Your task to perform on an android device: turn on improve location accuracy Image 0: 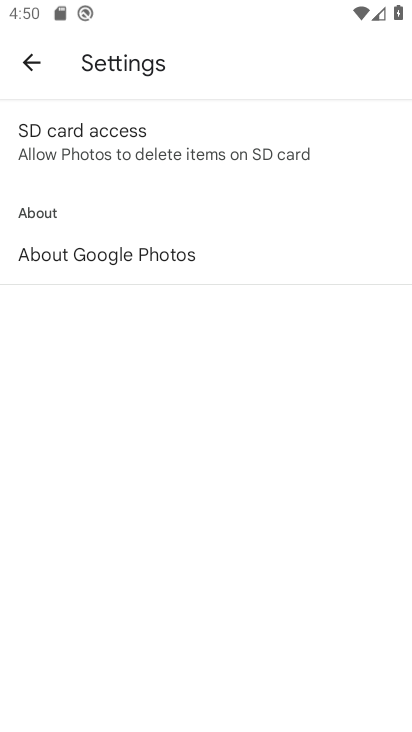
Step 0: press home button
Your task to perform on an android device: turn on improve location accuracy Image 1: 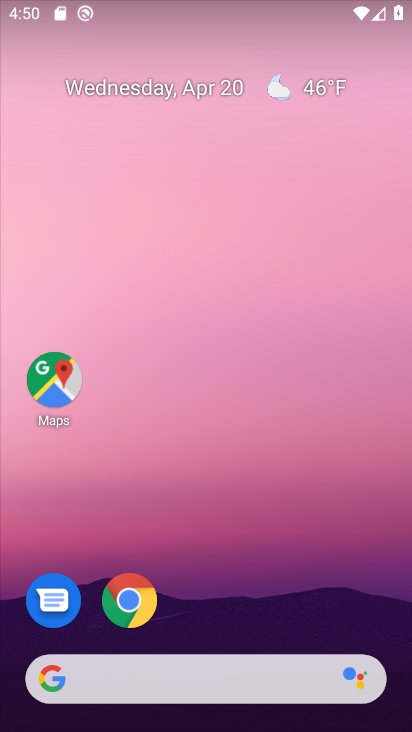
Step 1: drag from (228, 632) to (244, 68)
Your task to perform on an android device: turn on improve location accuracy Image 2: 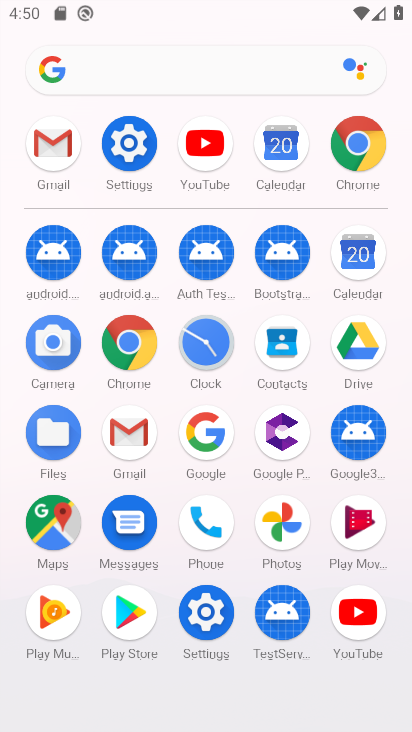
Step 2: click (206, 608)
Your task to perform on an android device: turn on improve location accuracy Image 3: 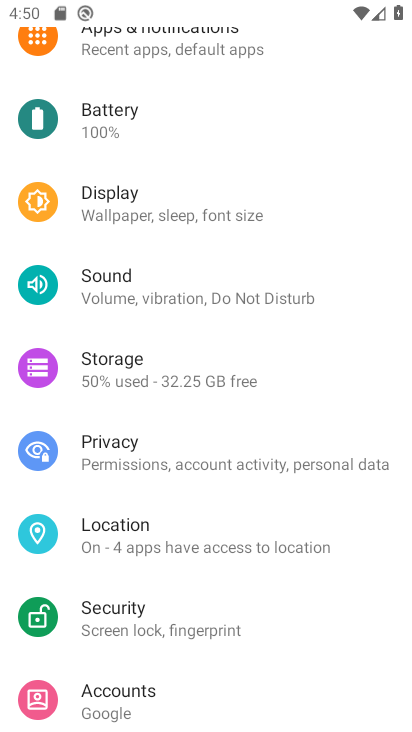
Step 3: click (161, 522)
Your task to perform on an android device: turn on improve location accuracy Image 4: 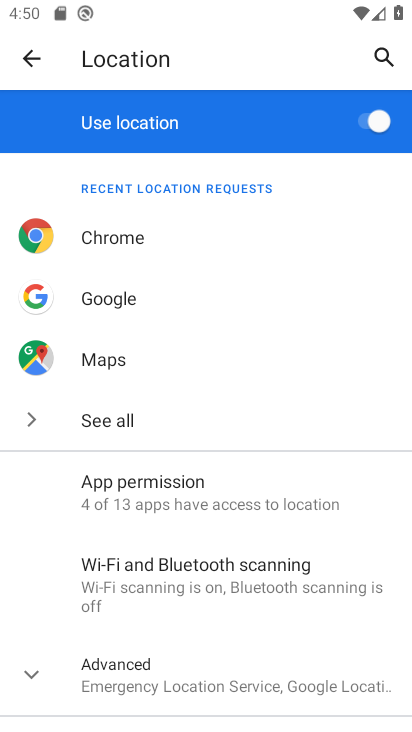
Step 4: click (36, 679)
Your task to perform on an android device: turn on improve location accuracy Image 5: 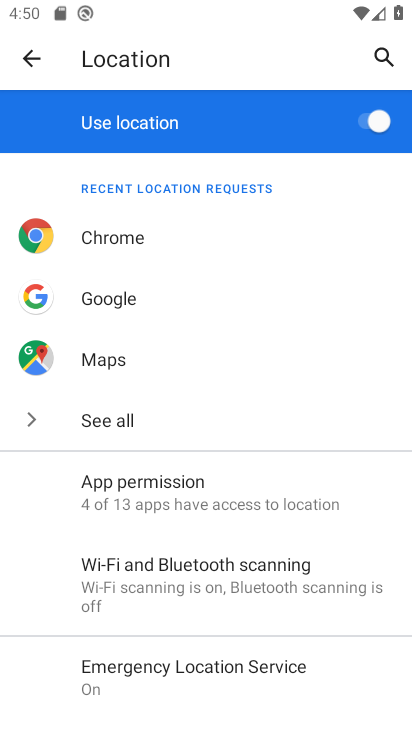
Step 5: drag from (45, 673) to (44, 170)
Your task to perform on an android device: turn on improve location accuracy Image 6: 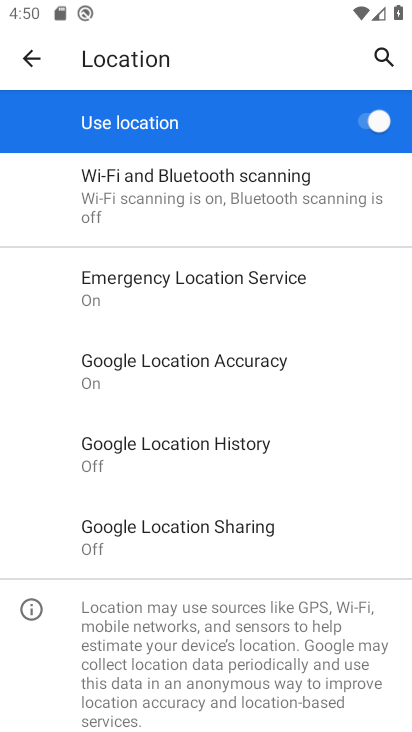
Step 6: click (46, 369)
Your task to perform on an android device: turn on improve location accuracy Image 7: 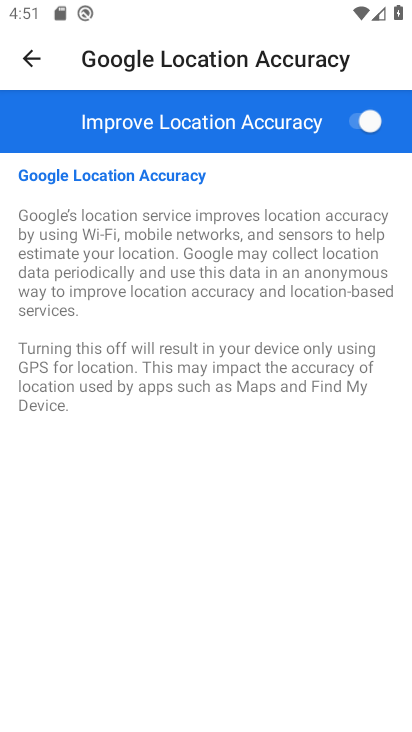
Step 7: task complete